Your task to perform on an android device: Open Google Chrome Image 0: 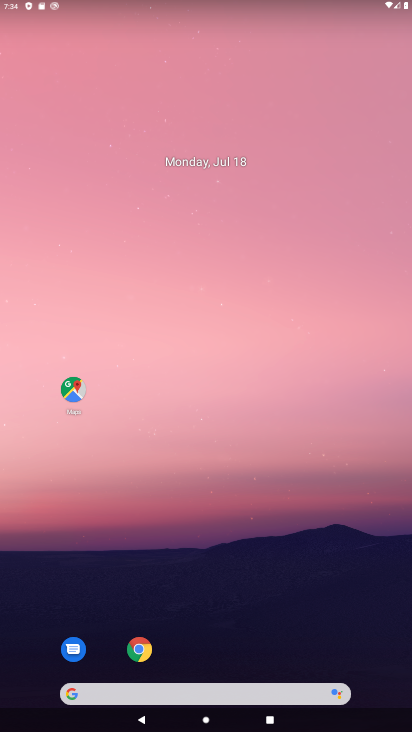
Step 0: drag from (296, 638) to (271, 38)
Your task to perform on an android device: Open Google Chrome Image 1: 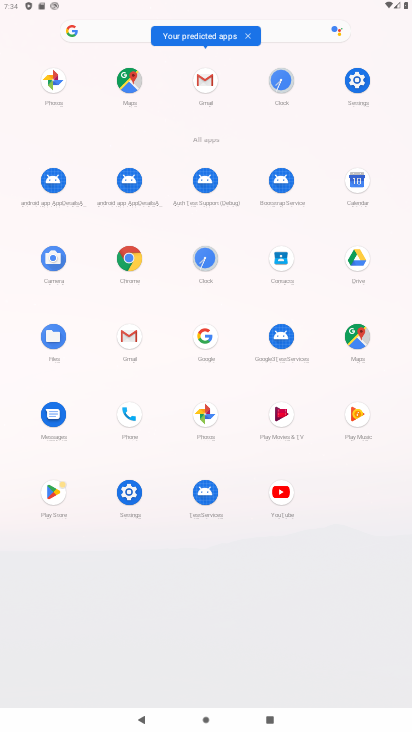
Step 1: drag from (320, 637) to (315, 158)
Your task to perform on an android device: Open Google Chrome Image 2: 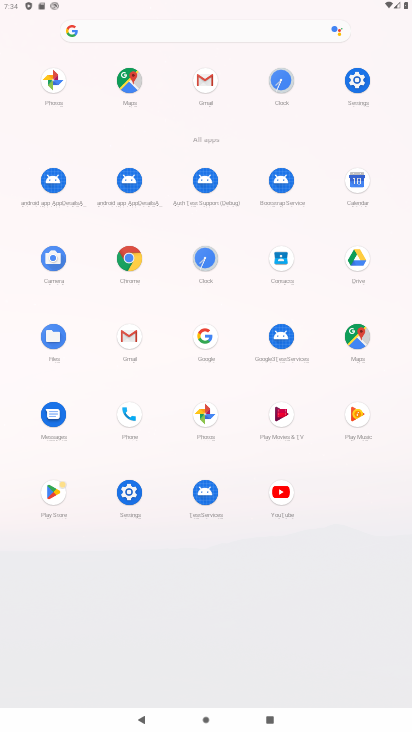
Step 2: click (132, 255)
Your task to perform on an android device: Open Google Chrome Image 3: 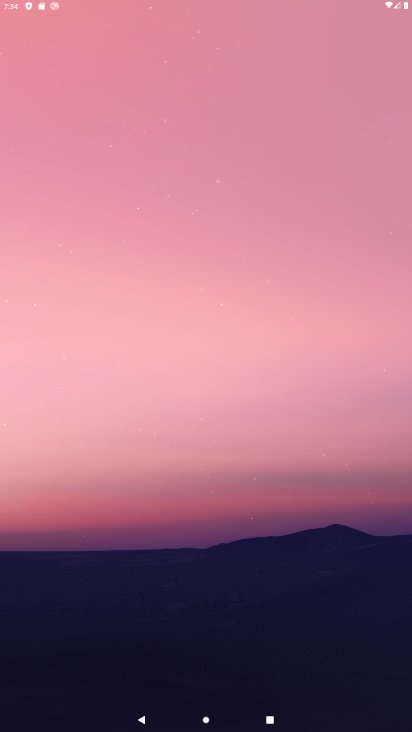
Step 3: click (131, 259)
Your task to perform on an android device: Open Google Chrome Image 4: 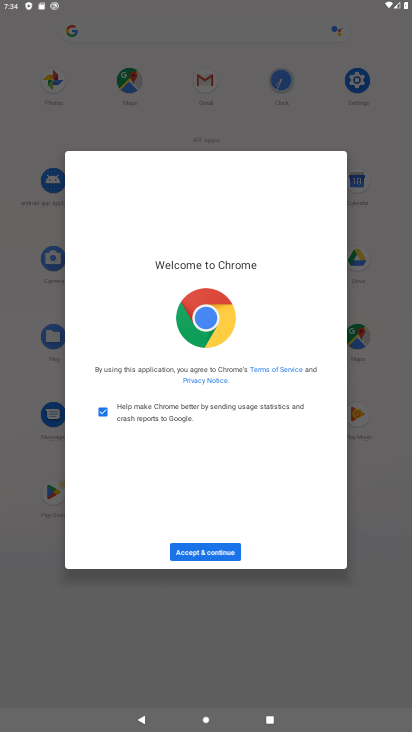
Step 4: click (200, 551)
Your task to perform on an android device: Open Google Chrome Image 5: 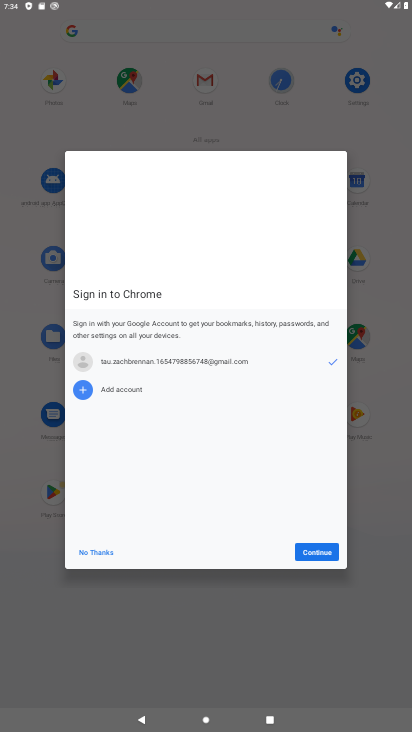
Step 5: click (311, 545)
Your task to perform on an android device: Open Google Chrome Image 6: 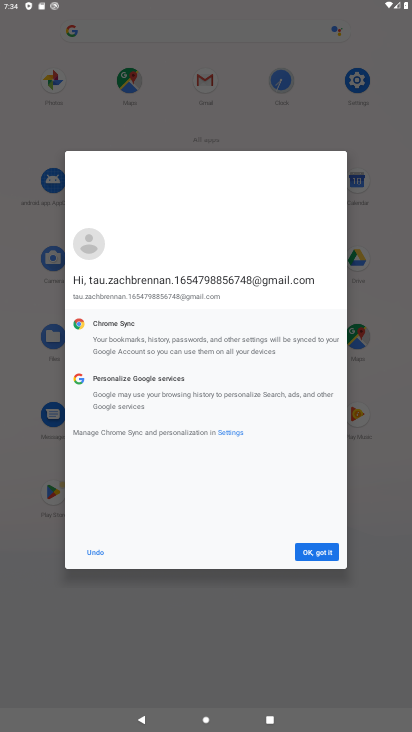
Step 6: click (311, 545)
Your task to perform on an android device: Open Google Chrome Image 7: 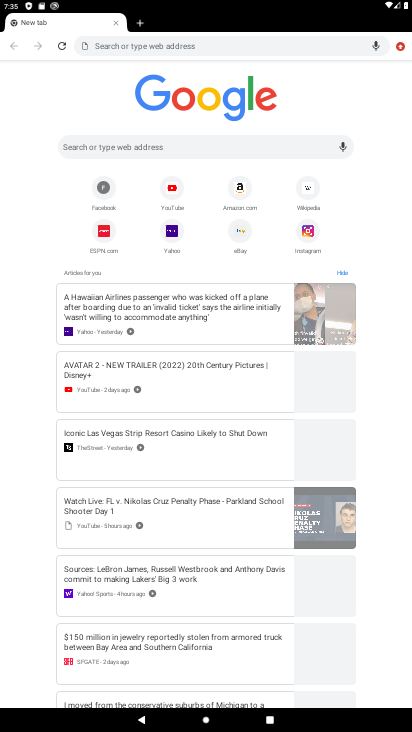
Step 7: task complete